Your task to perform on an android device: Open Google Image 0: 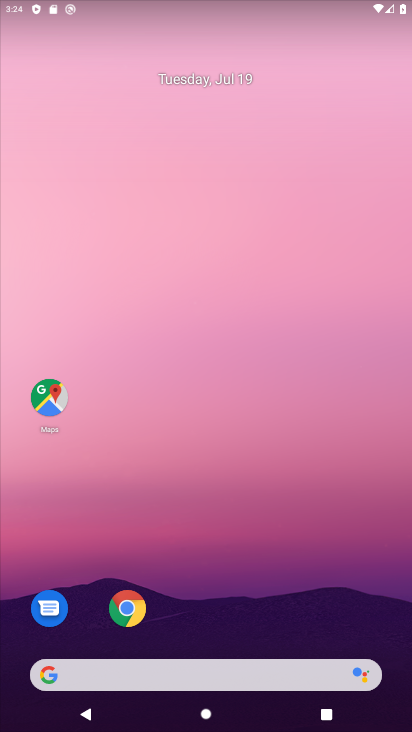
Step 0: click (50, 671)
Your task to perform on an android device: Open Google Image 1: 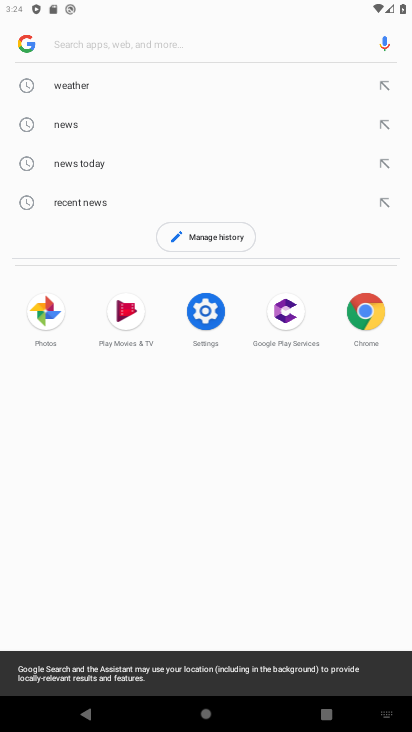
Step 1: click (20, 42)
Your task to perform on an android device: Open Google Image 2: 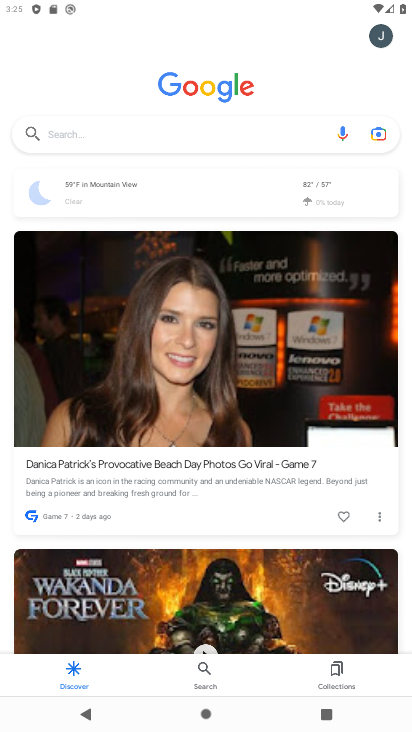
Step 2: task complete